Your task to perform on an android device: open chrome and create a bookmark for the current page Image 0: 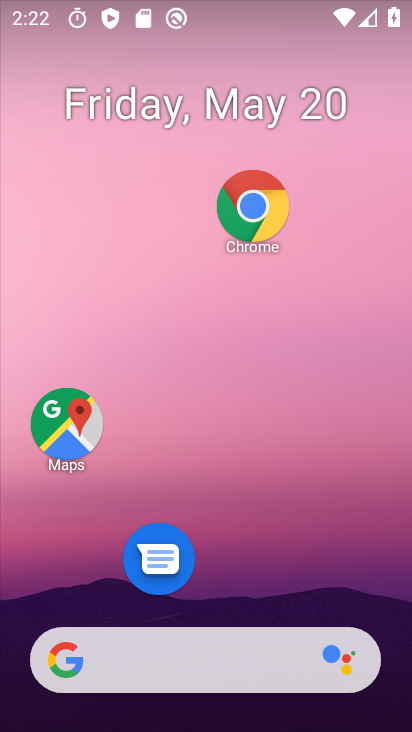
Step 0: click (236, 221)
Your task to perform on an android device: open chrome and create a bookmark for the current page Image 1: 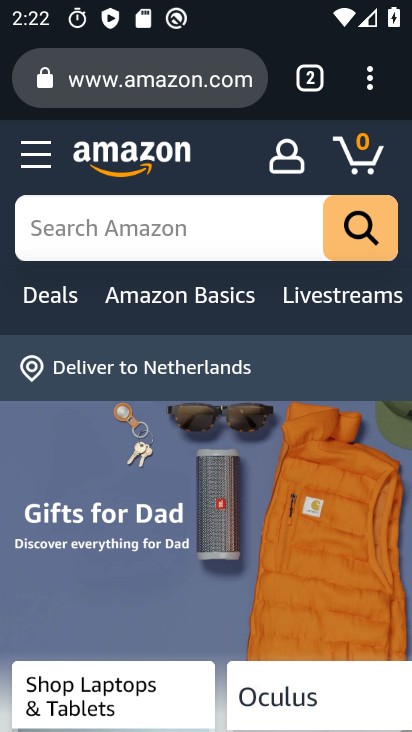
Step 1: task complete